Your task to perform on an android device: Install the Instagram app Image 0: 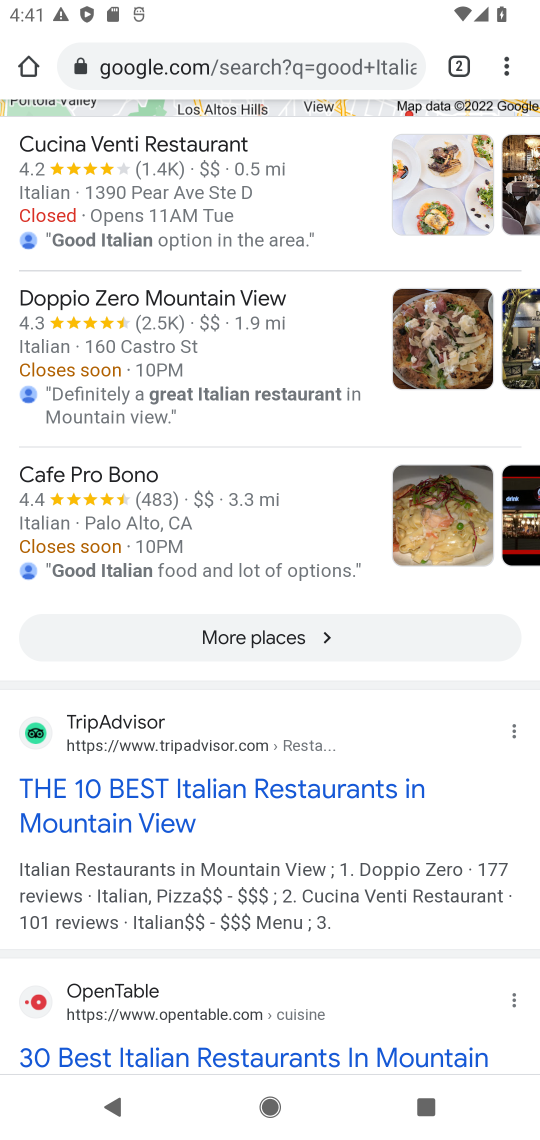
Step 0: press home button
Your task to perform on an android device: Install the Instagram app Image 1: 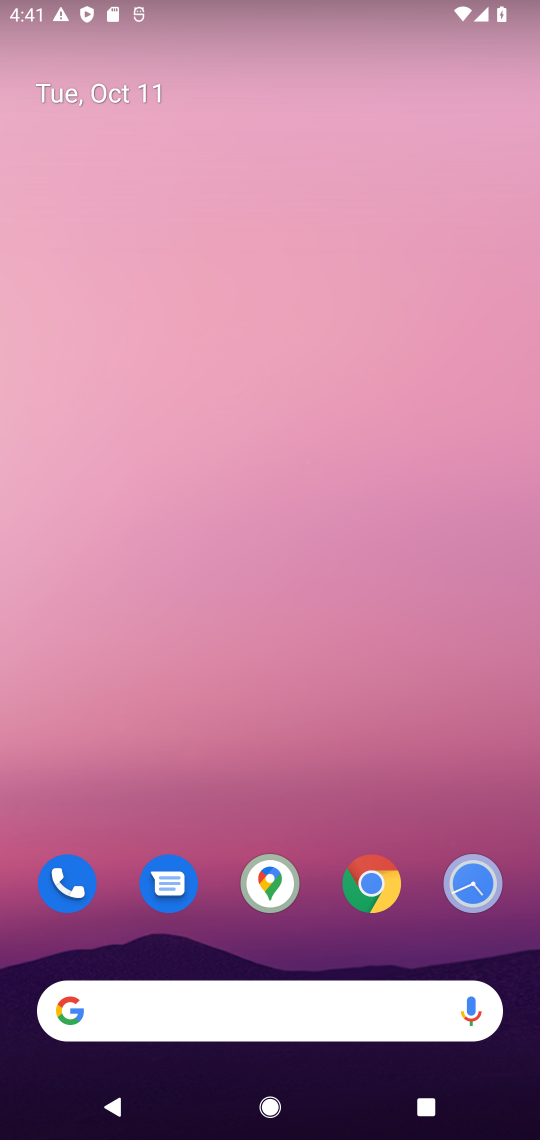
Step 1: drag from (316, 903) to (224, 56)
Your task to perform on an android device: Install the Instagram app Image 2: 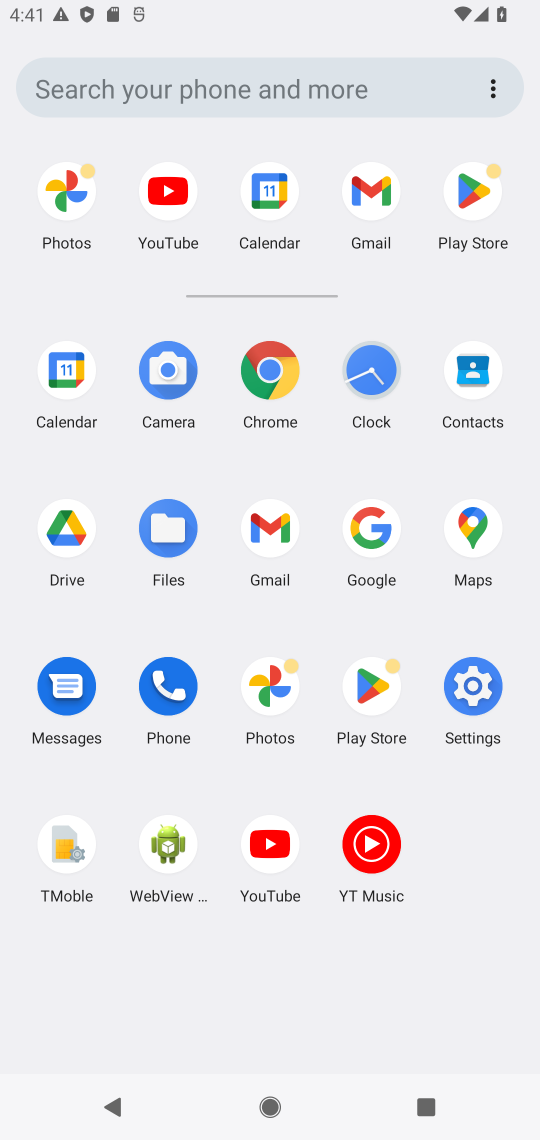
Step 2: click (367, 684)
Your task to perform on an android device: Install the Instagram app Image 3: 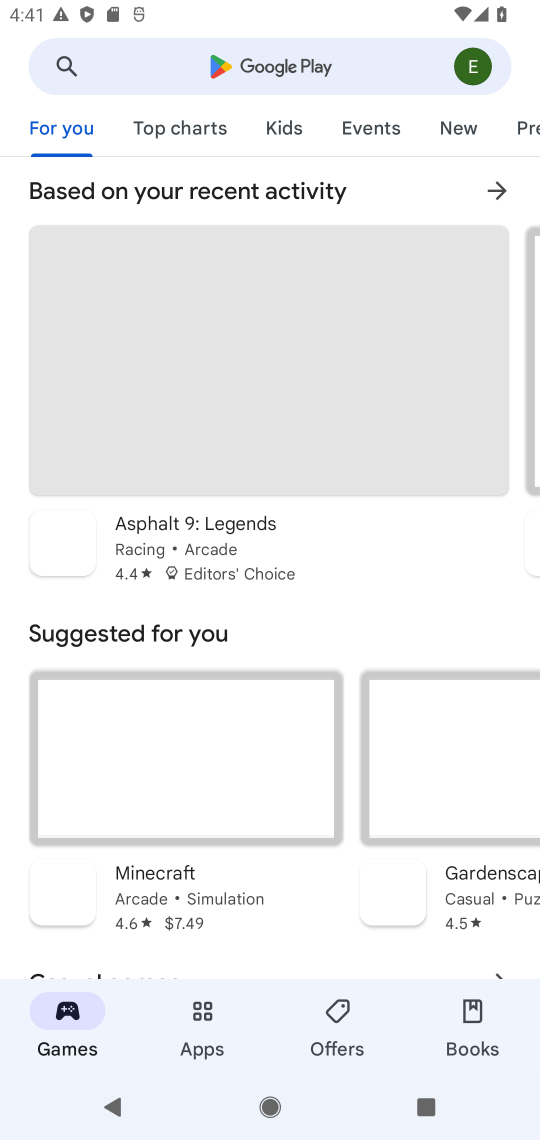
Step 3: click (299, 70)
Your task to perform on an android device: Install the Instagram app Image 4: 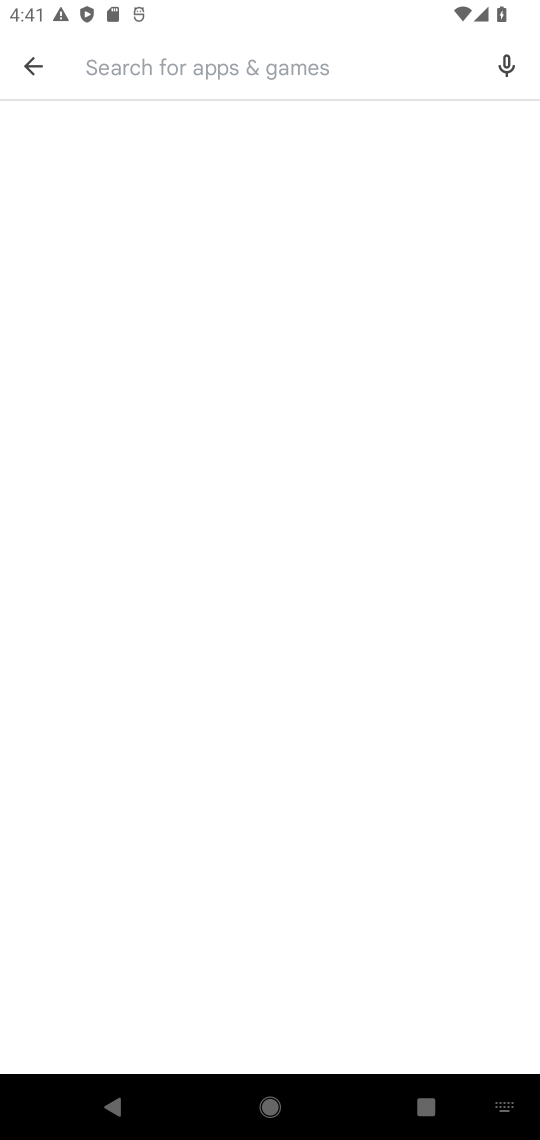
Step 4: type "Instagram "
Your task to perform on an android device: Install the Instagram app Image 5: 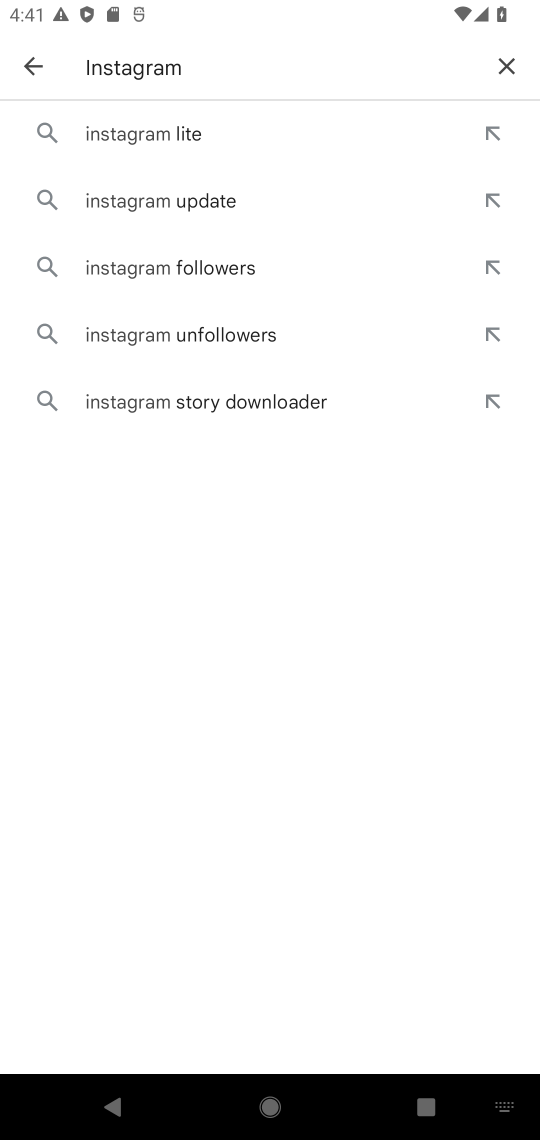
Step 5: press enter
Your task to perform on an android device: Install the Instagram app Image 6: 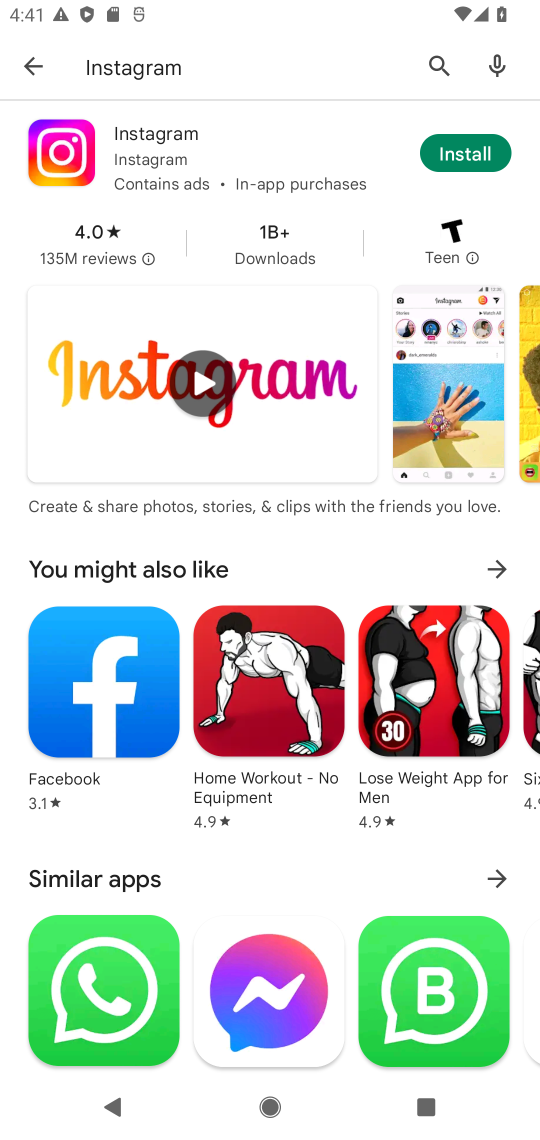
Step 6: click (490, 158)
Your task to perform on an android device: Install the Instagram app Image 7: 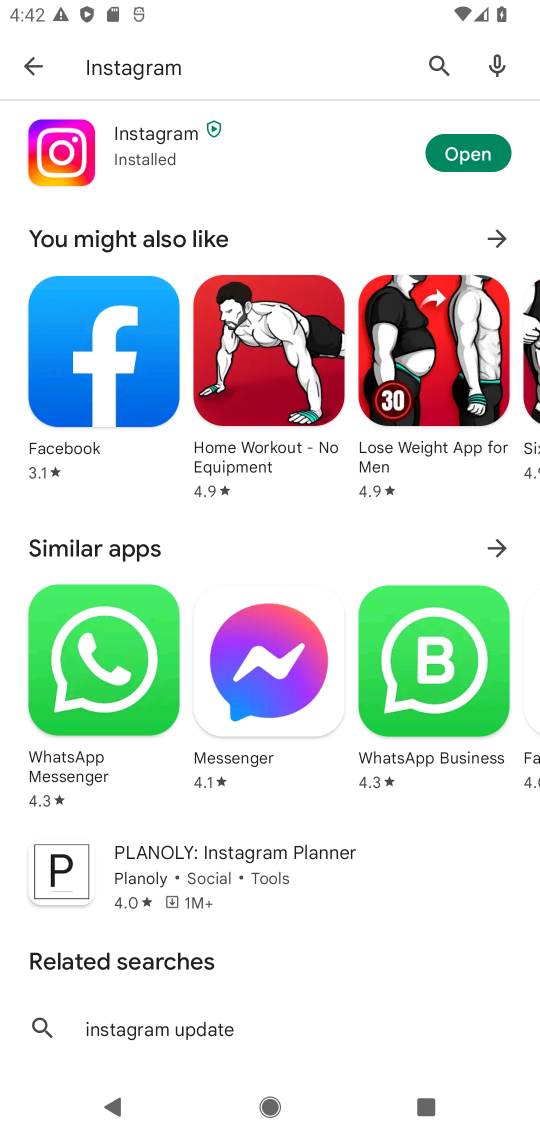
Step 7: task complete